Your task to perform on an android device: read, delete, or share a saved page in the chrome app Image 0: 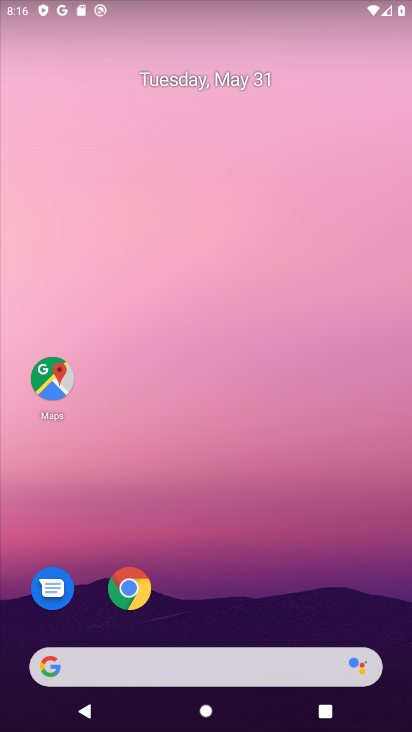
Step 0: click (128, 587)
Your task to perform on an android device: read, delete, or share a saved page in the chrome app Image 1: 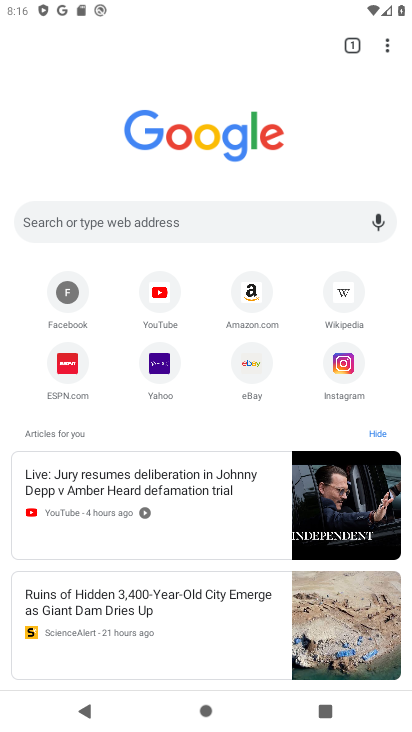
Step 1: click (396, 44)
Your task to perform on an android device: read, delete, or share a saved page in the chrome app Image 2: 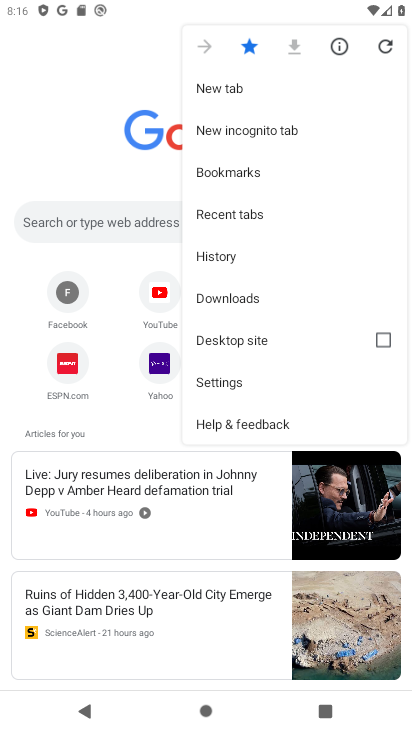
Step 2: click (257, 296)
Your task to perform on an android device: read, delete, or share a saved page in the chrome app Image 3: 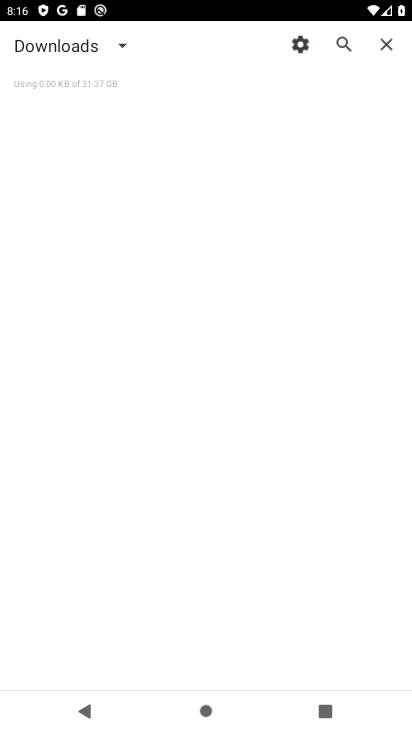
Step 3: click (105, 41)
Your task to perform on an android device: read, delete, or share a saved page in the chrome app Image 4: 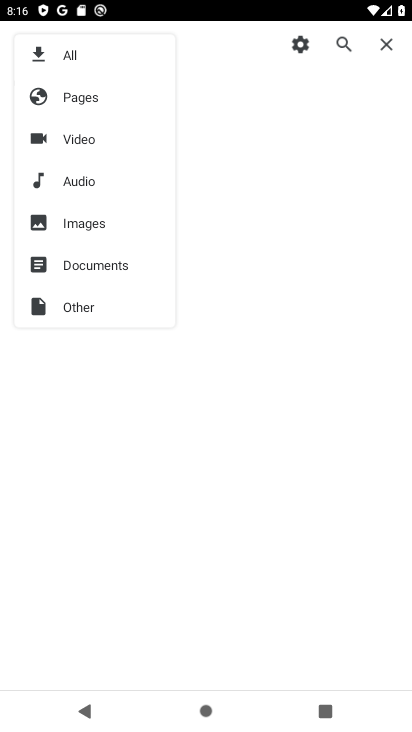
Step 4: click (81, 112)
Your task to perform on an android device: read, delete, or share a saved page in the chrome app Image 5: 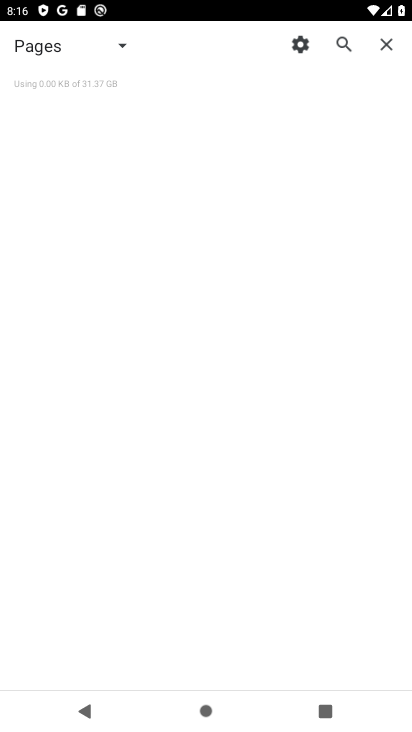
Step 5: task complete